Your task to perform on an android device: search for starred emails in the gmail app Image 0: 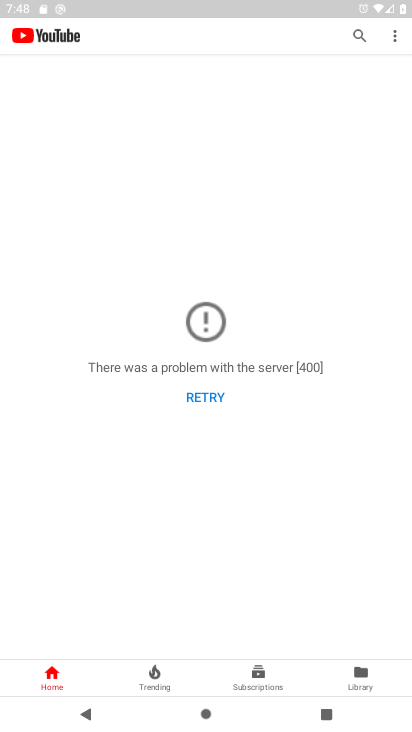
Step 0: press home button
Your task to perform on an android device: search for starred emails in the gmail app Image 1: 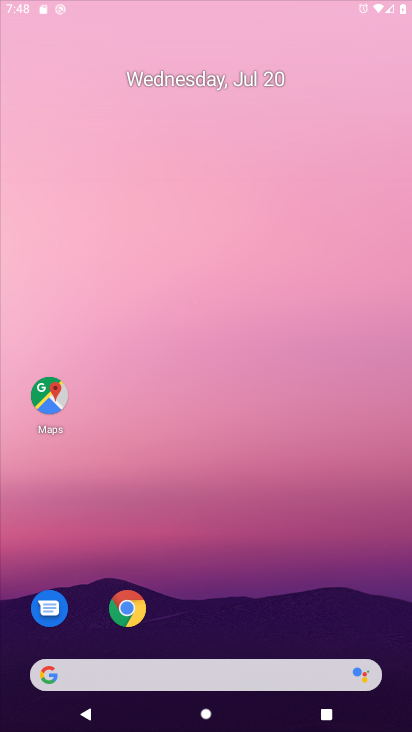
Step 1: drag from (203, 620) to (290, 40)
Your task to perform on an android device: search for starred emails in the gmail app Image 2: 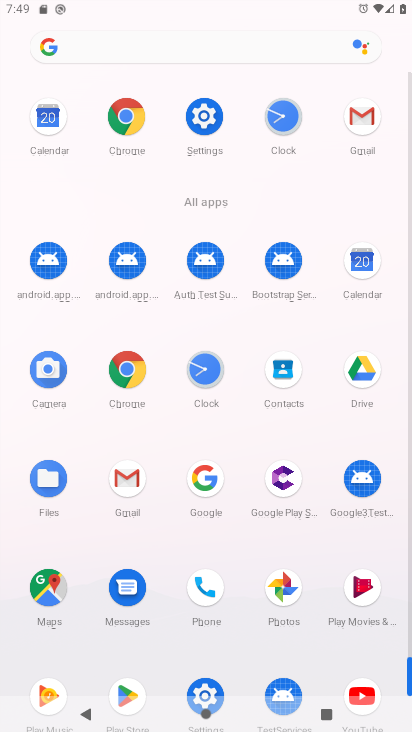
Step 2: click (131, 474)
Your task to perform on an android device: search for starred emails in the gmail app Image 3: 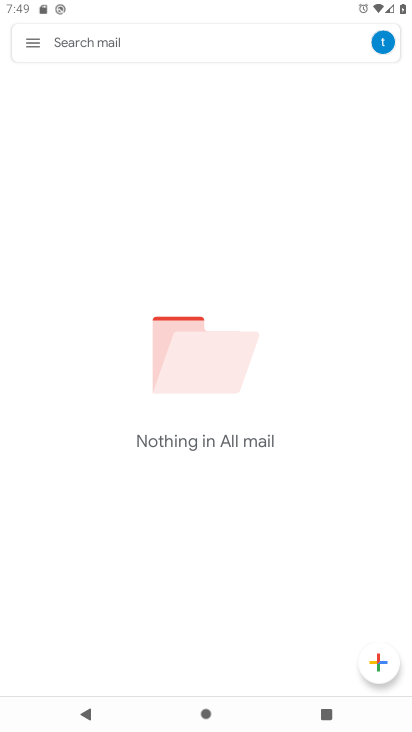
Step 3: click (33, 33)
Your task to perform on an android device: search for starred emails in the gmail app Image 4: 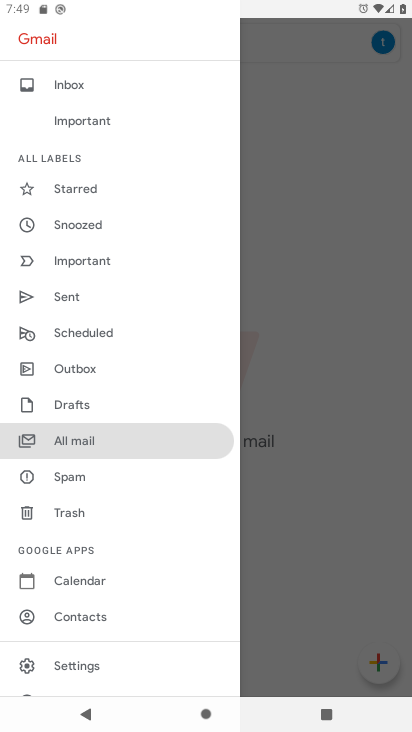
Step 4: click (95, 191)
Your task to perform on an android device: search for starred emails in the gmail app Image 5: 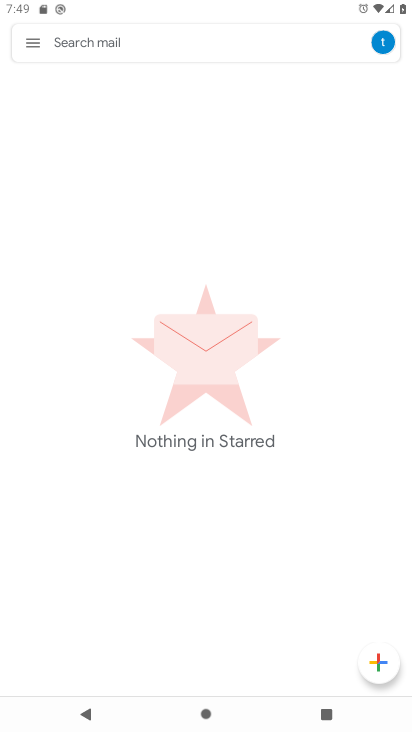
Step 5: task complete